Your task to perform on an android device: Go to CNN.com Image 0: 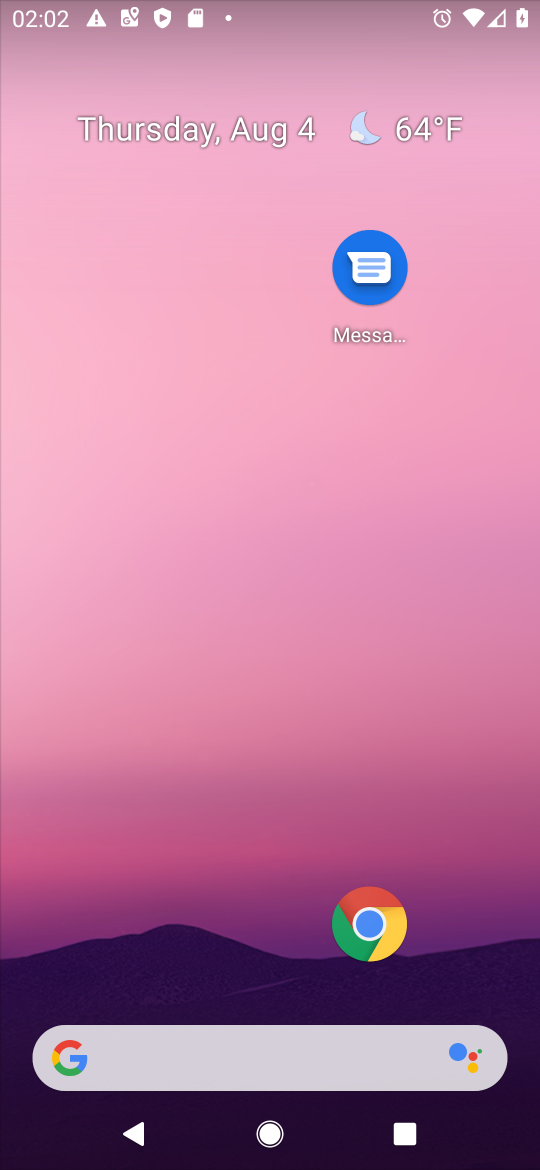
Step 0: click (157, 1061)
Your task to perform on an android device: Go to CNN.com Image 1: 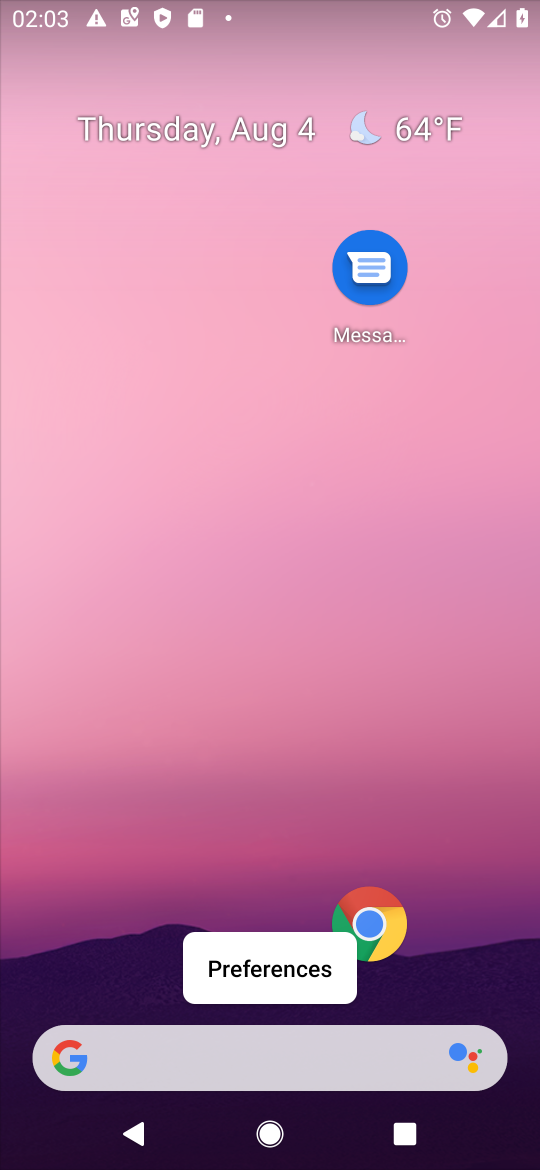
Step 1: click (186, 1033)
Your task to perform on an android device: Go to CNN.com Image 2: 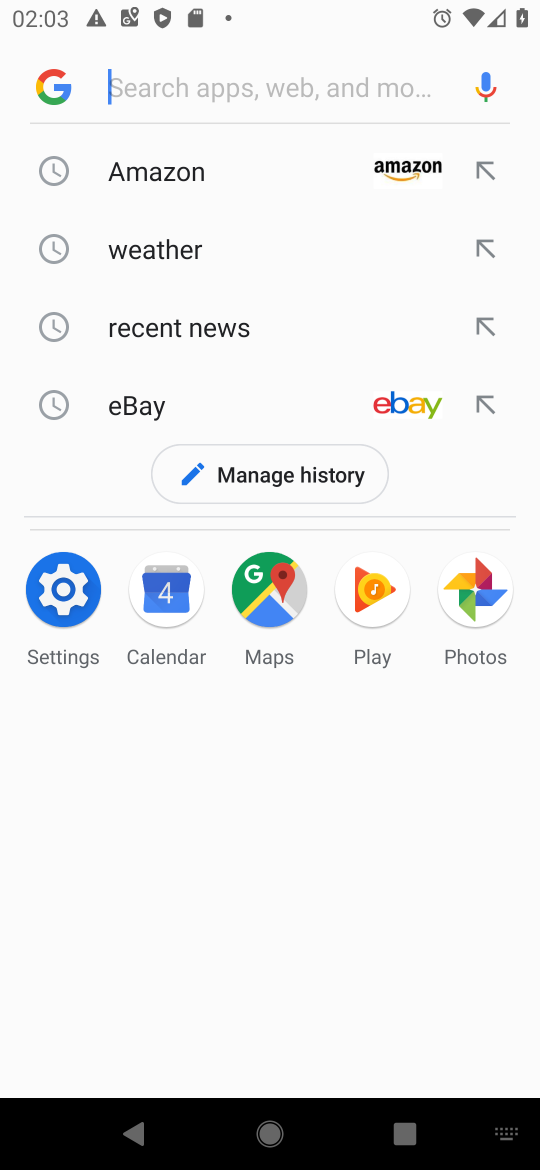
Step 2: type "CNN.com"
Your task to perform on an android device: Go to CNN.com Image 3: 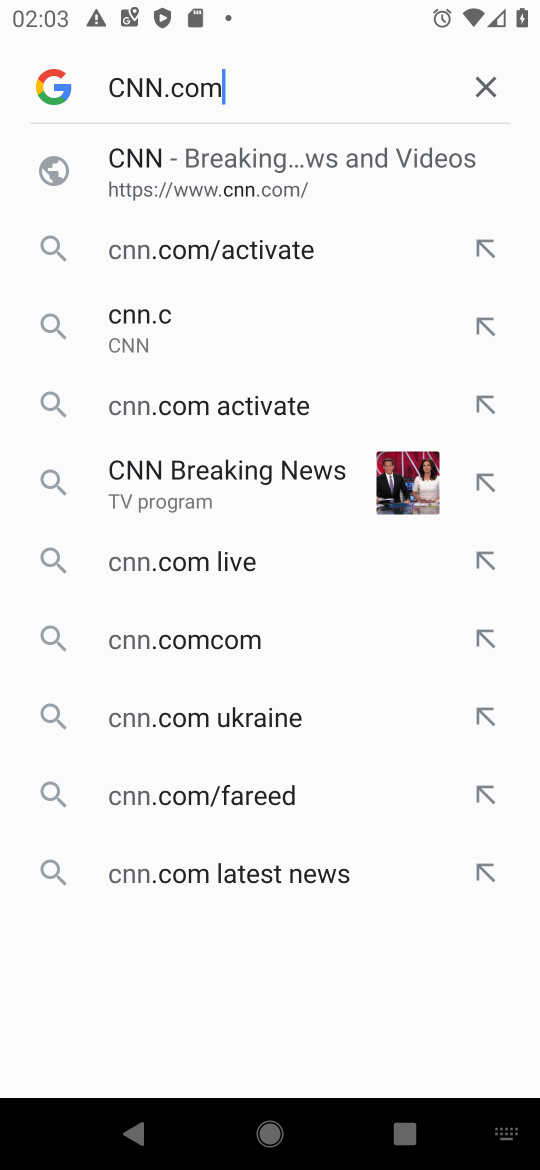
Step 3: type ""
Your task to perform on an android device: Go to CNN.com Image 4: 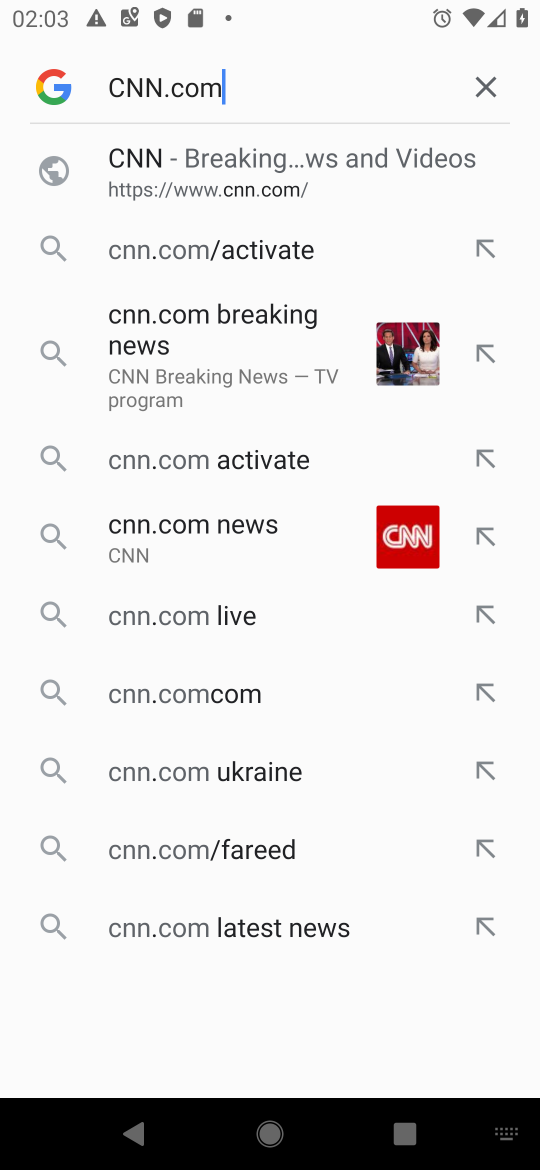
Step 4: click (133, 155)
Your task to perform on an android device: Go to CNN.com Image 5: 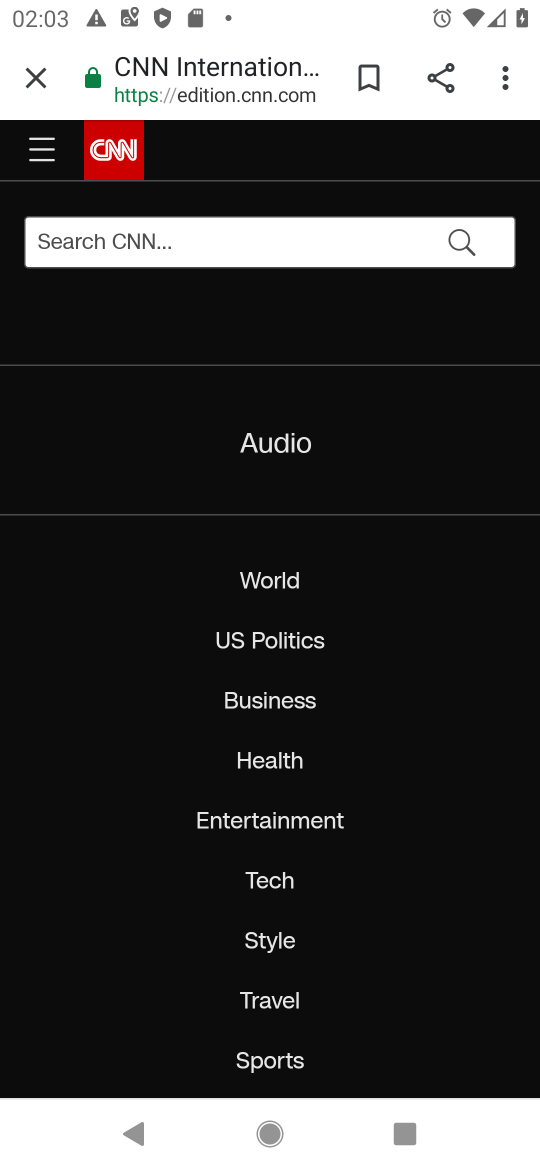
Step 5: task complete